Your task to perform on an android device: Open calendar and show me the first week of next month Image 0: 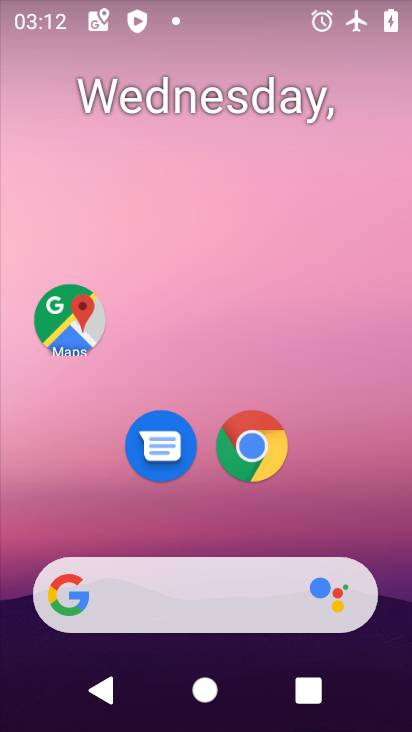
Step 0: drag from (211, 529) to (227, 215)
Your task to perform on an android device: Open calendar and show me the first week of next month Image 1: 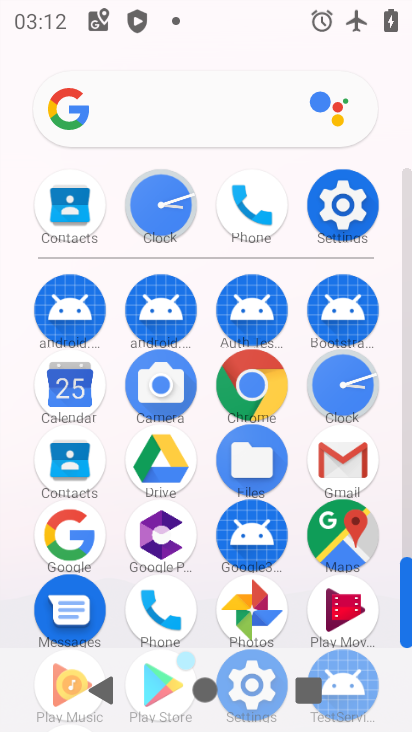
Step 1: click (81, 386)
Your task to perform on an android device: Open calendar and show me the first week of next month Image 2: 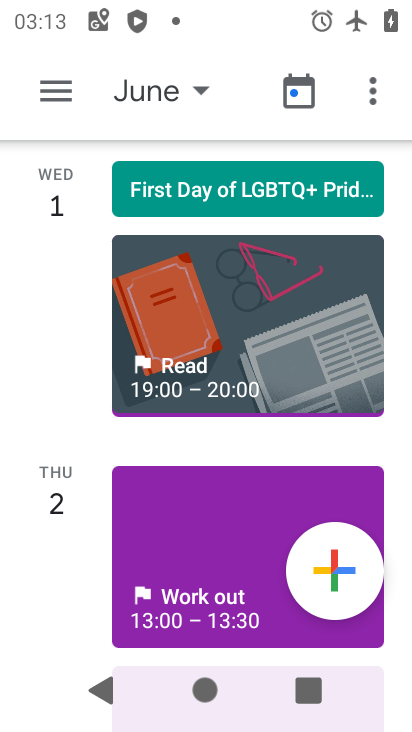
Step 2: click (194, 91)
Your task to perform on an android device: Open calendar and show me the first week of next month Image 3: 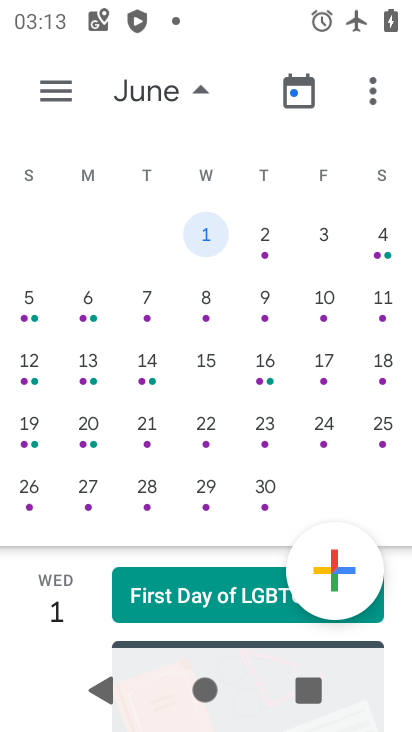
Step 3: drag from (347, 316) to (93, 318)
Your task to perform on an android device: Open calendar and show me the first week of next month Image 4: 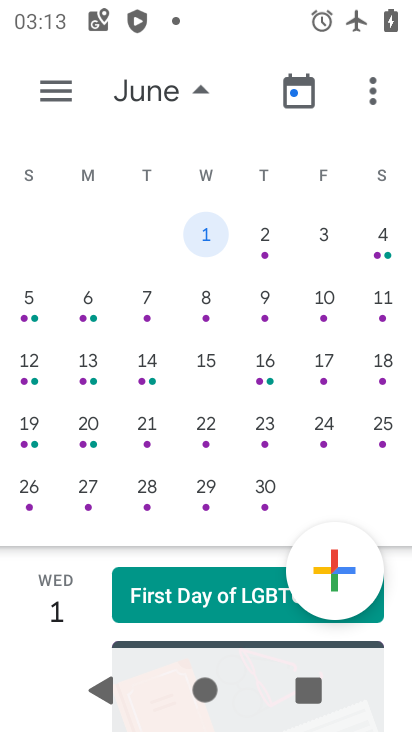
Step 4: click (208, 226)
Your task to perform on an android device: Open calendar and show me the first week of next month Image 5: 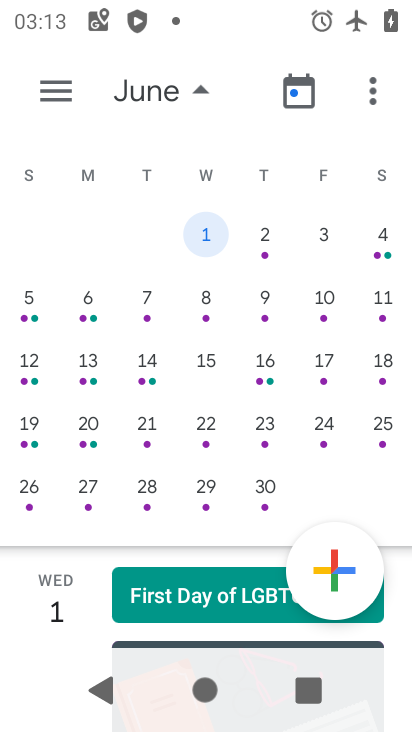
Step 5: task complete